Your task to perform on an android device: Go to Wikipedia Image 0: 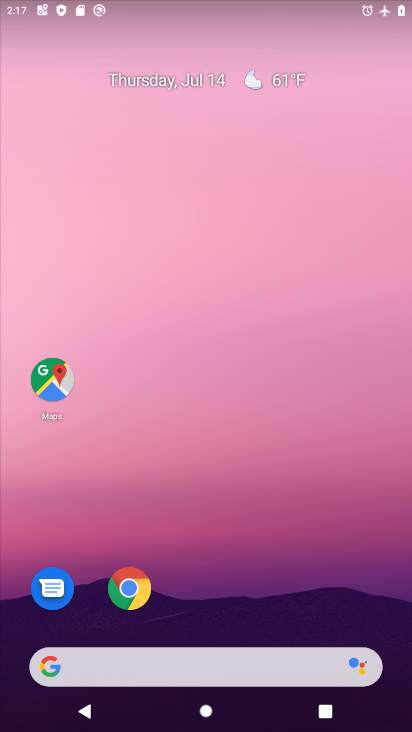
Step 0: drag from (244, 635) to (219, 307)
Your task to perform on an android device: Go to Wikipedia Image 1: 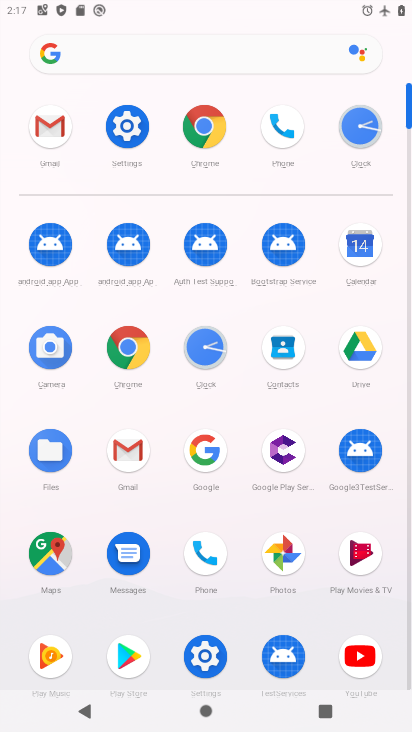
Step 1: click (200, 120)
Your task to perform on an android device: Go to Wikipedia Image 2: 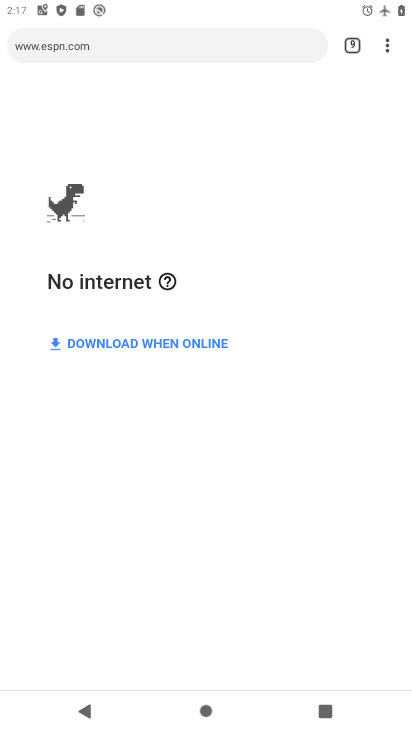
Step 2: click (374, 44)
Your task to perform on an android device: Go to Wikipedia Image 3: 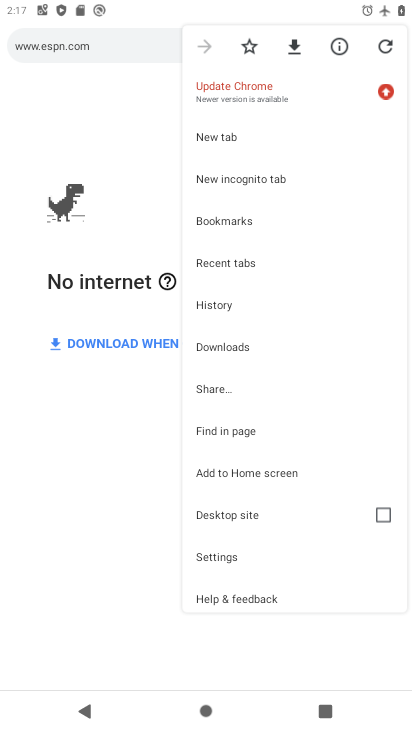
Step 3: click (256, 124)
Your task to perform on an android device: Go to Wikipedia Image 4: 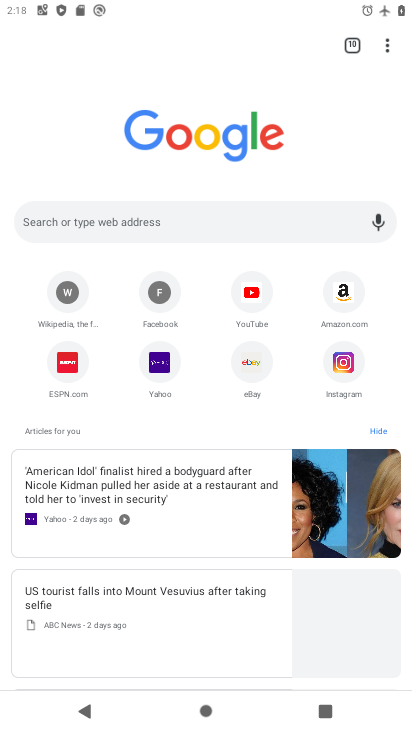
Step 4: click (218, 221)
Your task to perform on an android device: Go to Wikipedia Image 5: 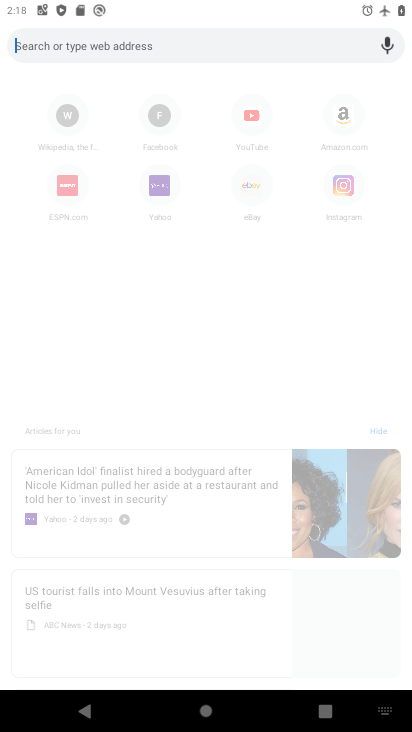
Step 5: type " Wikipedia "
Your task to perform on an android device: Go to Wikipedia Image 6: 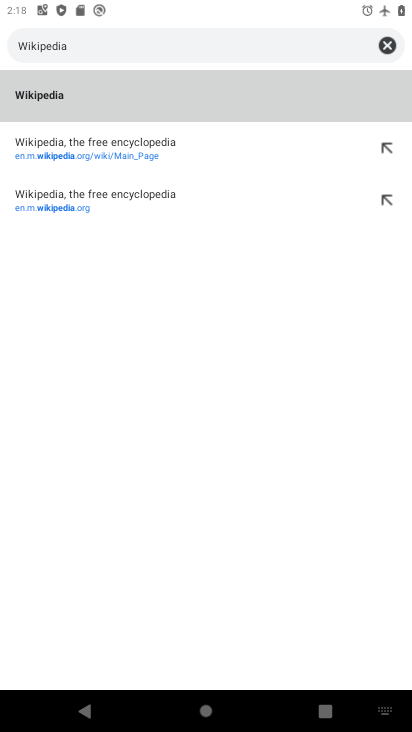
Step 6: click (129, 101)
Your task to perform on an android device: Go to Wikipedia Image 7: 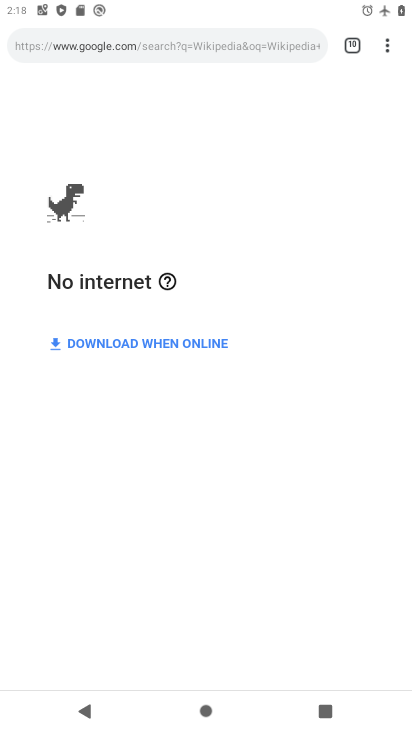
Step 7: task complete